Your task to perform on an android device: Empty the shopping cart on newegg.com. Search for bose quietcomfort 35 on newegg.com, select the first entry, add it to the cart, then select checkout. Image 0: 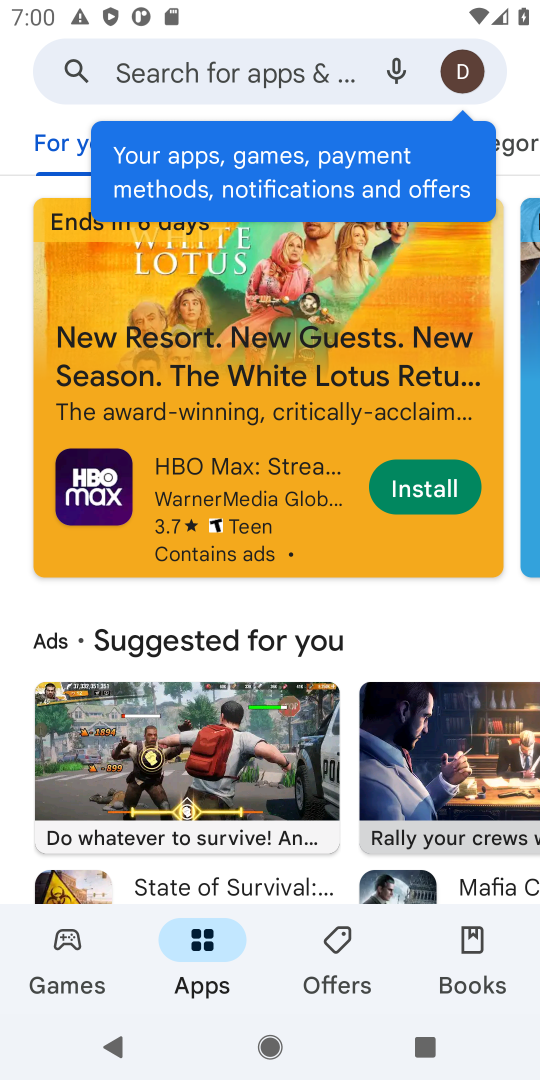
Step 0: press home button
Your task to perform on an android device: Empty the shopping cart on newegg.com. Search for bose quietcomfort 35 on newegg.com, select the first entry, add it to the cart, then select checkout. Image 1: 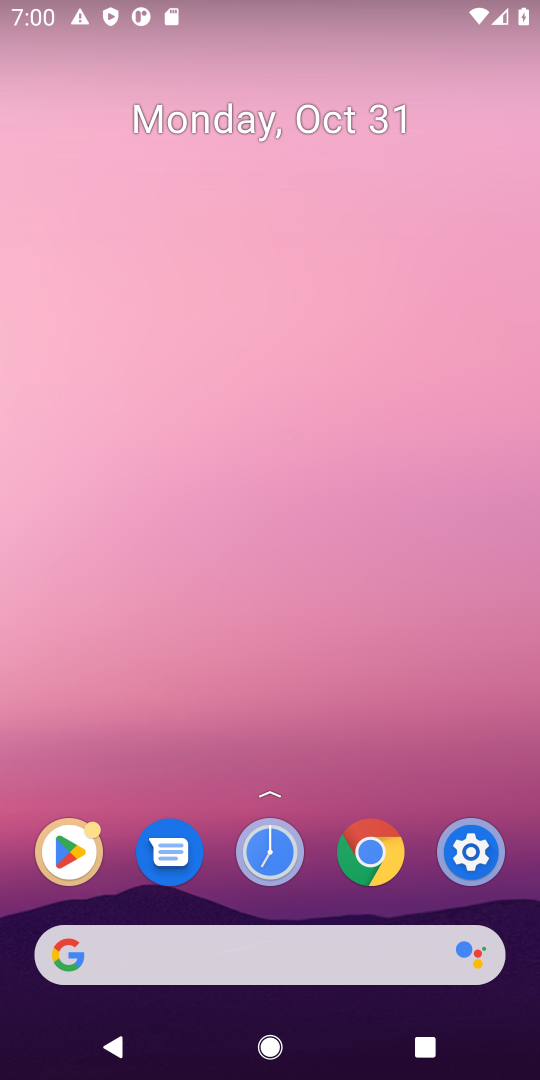
Step 1: drag from (323, 754) to (400, 5)
Your task to perform on an android device: Empty the shopping cart on newegg.com. Search for bose quietcomfort 35 on newegg.com, select the first entry, add it to the cart, then select checkout. Image 2: 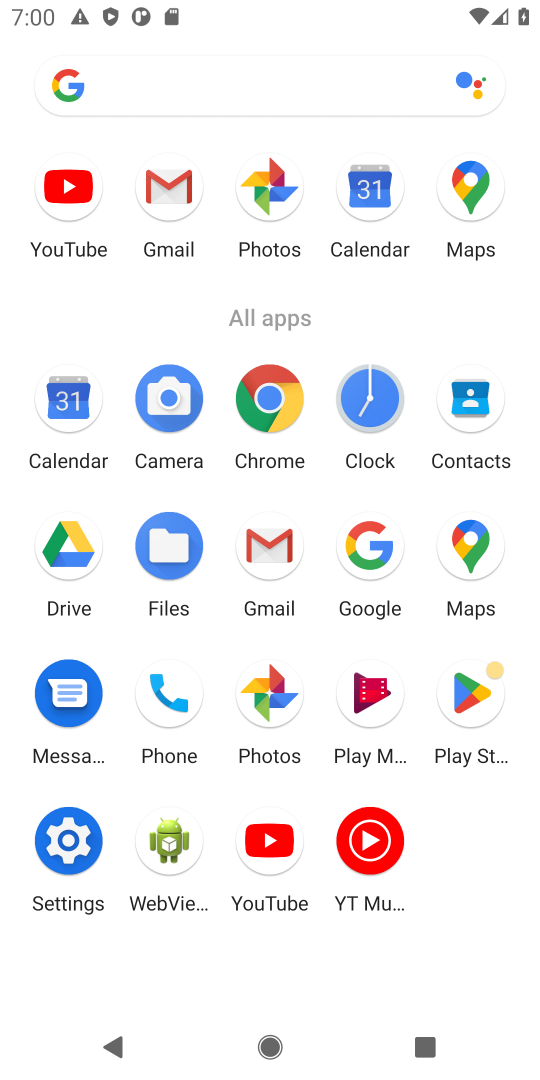
Step 2: click (259, 392)
Your task to perform on an android device: Empty the shopping cart on newegg.com. Search for bose quietcomfort 35 on newegg.com, select the first entry, add it to the cart, then select checkout. Image 3: 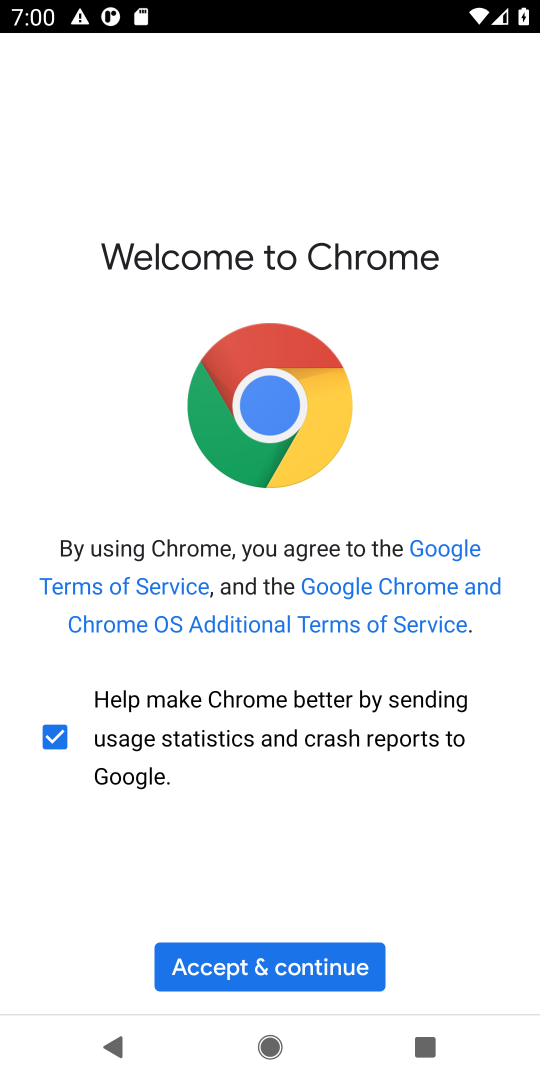
Step 3: click (258, 961)
Your task to perform on an android device: Empty the shopping cart on newegg.com. Search for bose quietcomfort 35 on newegg.com, select the first entry, add it to the cart, then select checkout. Image 4: 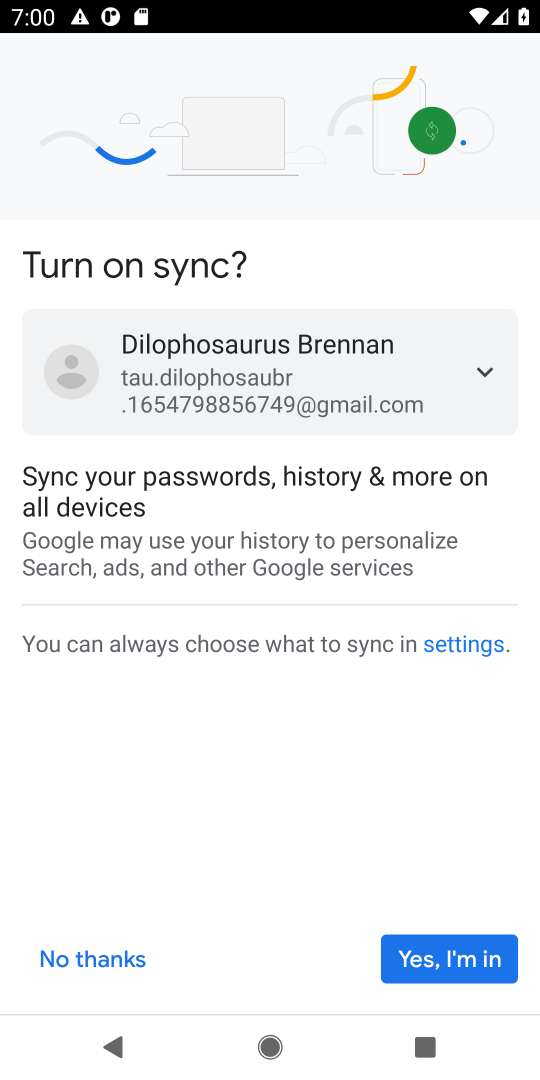
Step 4: click (447, 954)
Your task to perform on an android device: Empty the shopping cart on newegg.com. Search for bose quietcomfort 35 on newegg.com, select the first entry, add it to the cart, then select checkout. Image 5: 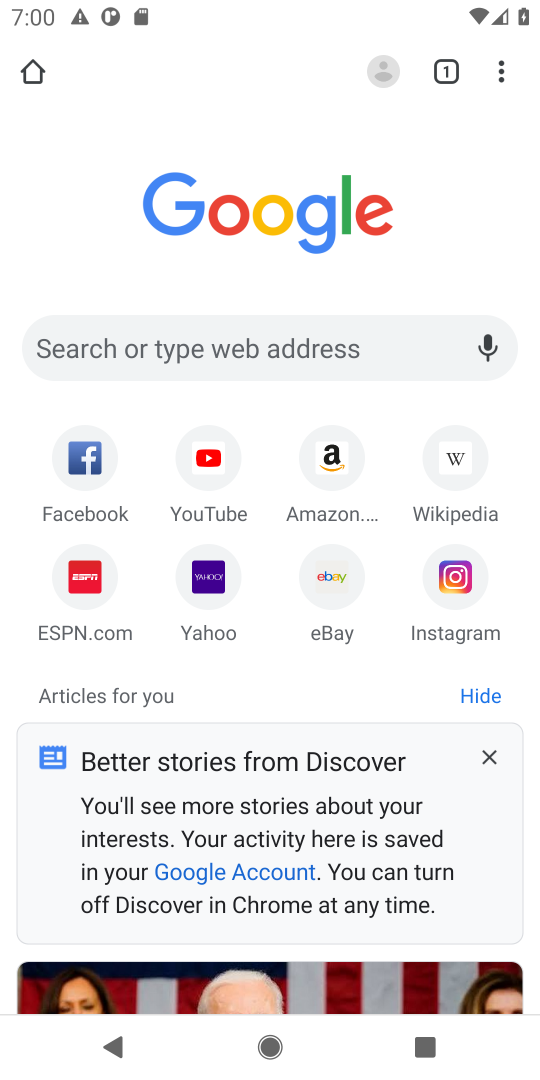
Step 5: click (158, 345)
Your task to perform on an android device: Empty the shopping cart on newegg.com. Search for bose quietcomfort 35 on newegg.com, select the first entry, add it to the cart, then select checkout. Image 6: 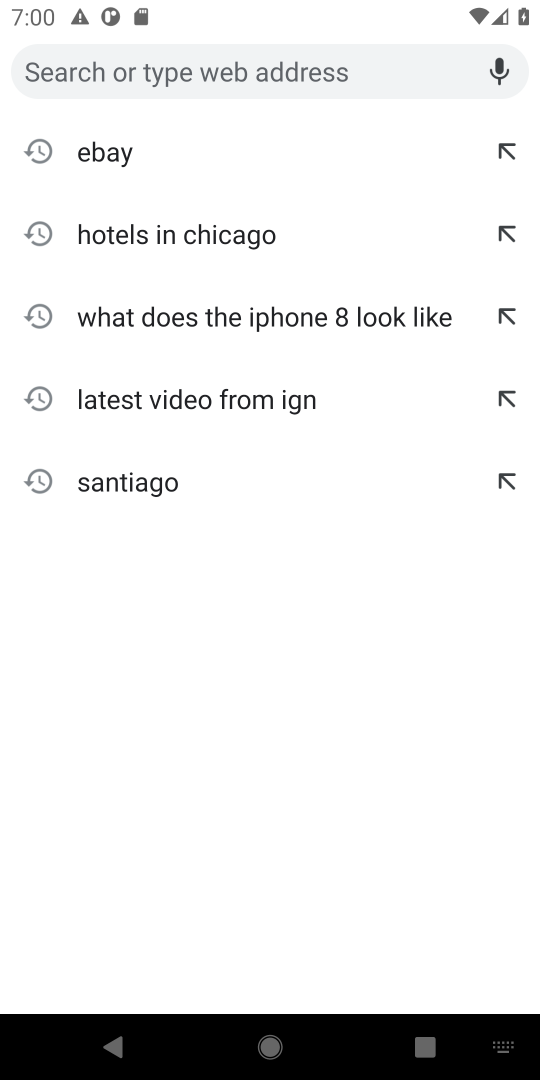
Step 6: type "newegg.com"
Your task to perform on an android device: Empty the shopping cart on newegg.com. Search for bose quietcomfort 35 on newegg.com, select the first entry, add it to the cart, then select checkout. Image 7: 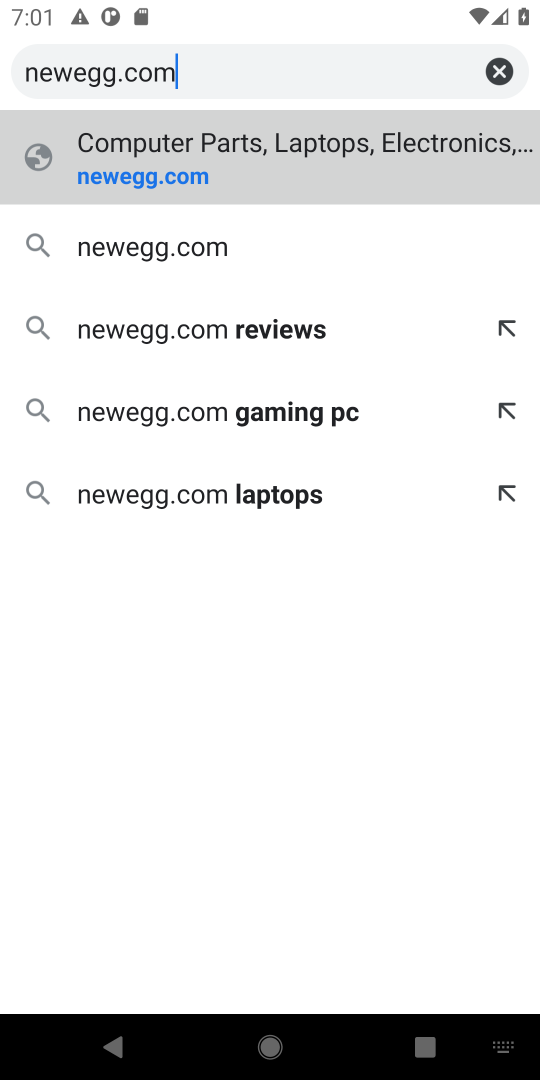
Step 7: click (231, 172)
Your task to perform on an android device: Empty the shopping cart on newegg.com. Search for bose quietcomfort 35 on newegg.com, select the first entry, add it to the cart, then select checkout. Image 8: 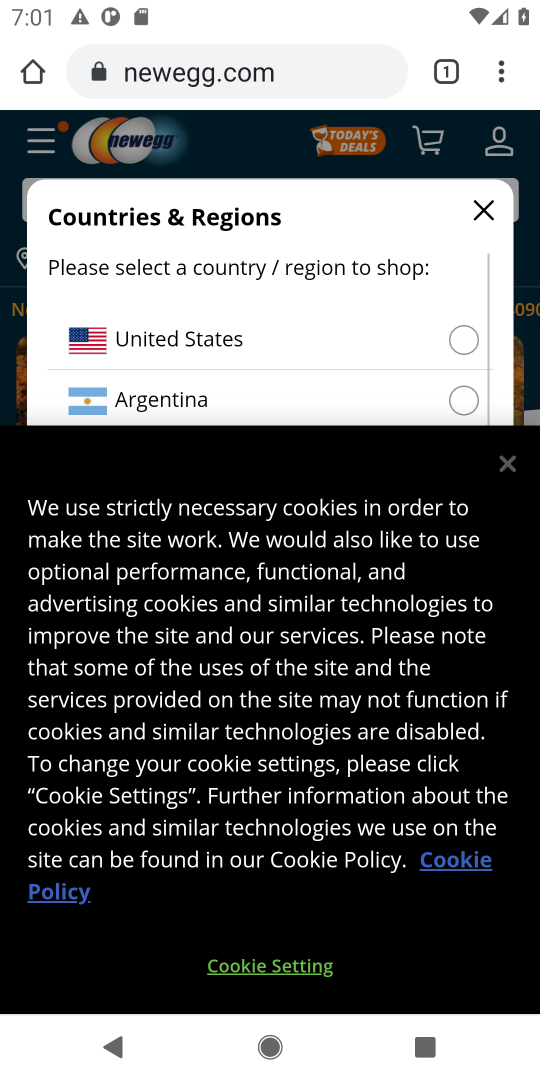
Step 8: click (508, 467)
Your task to perform on an android device: Empty the shopping cart on newegg.com. Search for bose quietcomfort 35 on newegg.com, select the first entry, add it to the cart, then select checkout. Image 9: 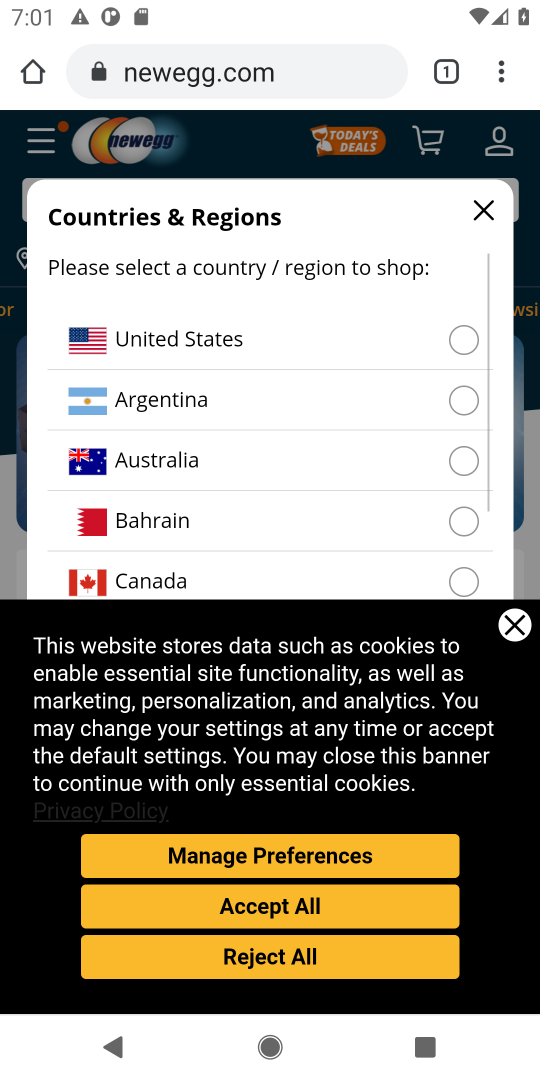
Step 9: click (284, 906)
Your task to perform on an android device: Empty the shopping cart on newegg.com. Search for bose quietcomfort 35 on newegg.com, select the first entry, add it to the cart, then select checkout. Image 10: 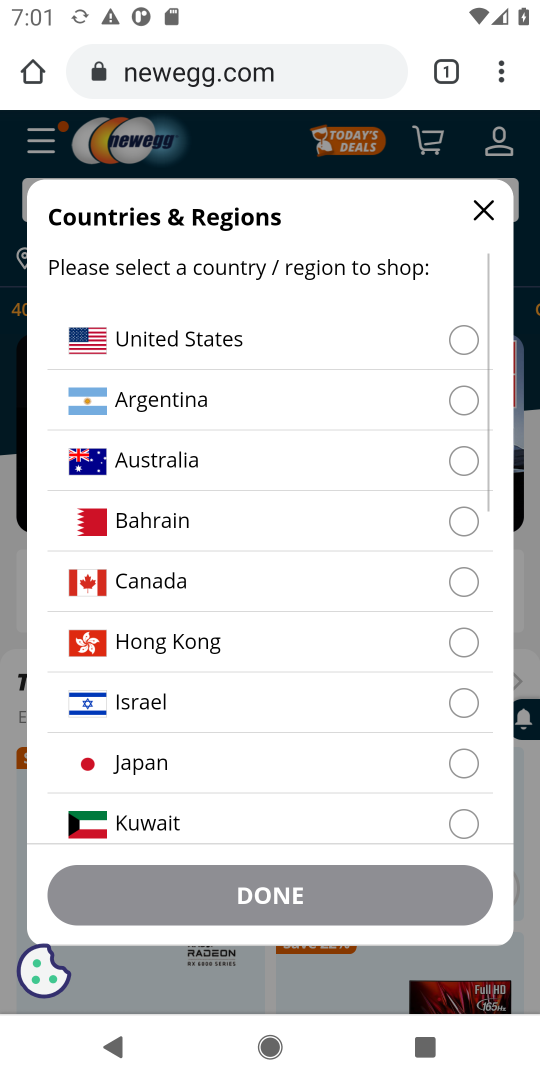
Step 10: click (462, 338)
Your task to perform on an android device: Empty the shopping cart on newegg.com. Search for bose quietcomfort 35 on newegg.com, select the first entry, add it to the cart, then select checkout. Image 11: 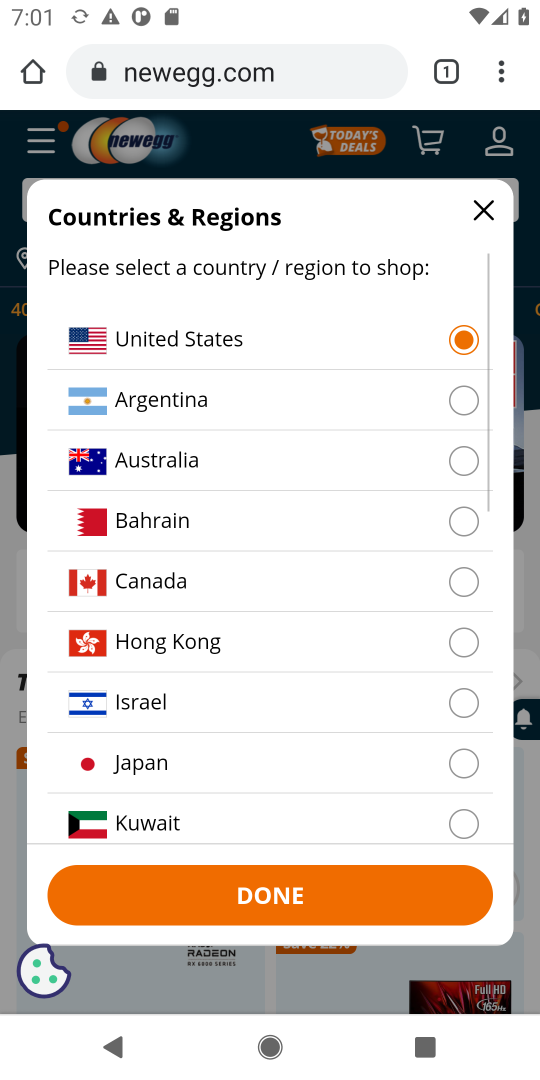
Step 11: click (274, 900)
Your task to perform on an android device: Empty the shopping cart on newegg.com. Search for bose quietcomfort 35 on newegg.com, select the first entry, add it to the cart, then select checkout. Image 12: 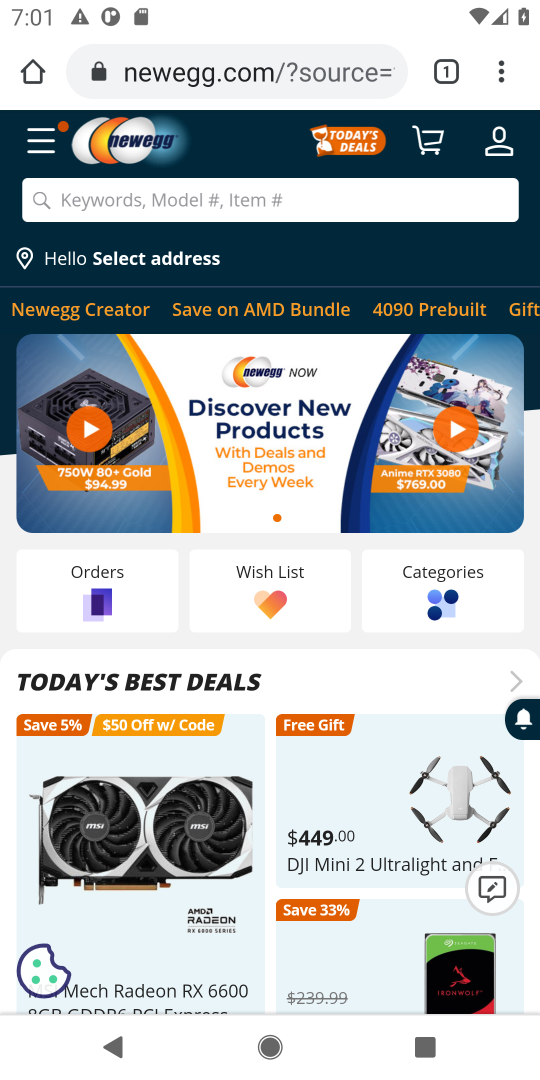
Step 12: click (161, 195)
Your task to perform on an android device: Empty the shopping cart on newegg.com. Search for bose quietcomfort 35 on newegg.com, select the first entry, add it to the cart, then select checkout. Image 13: 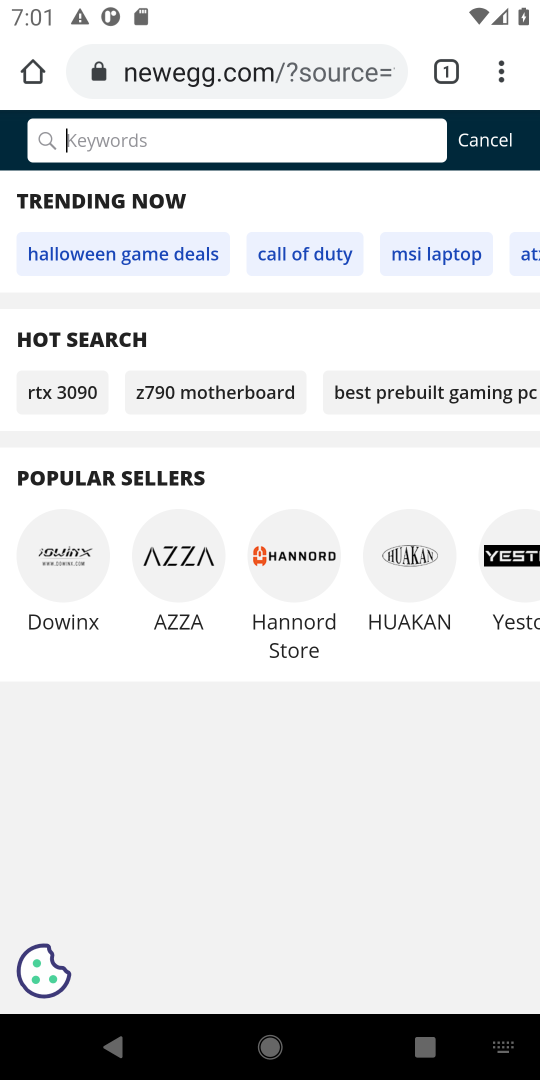
Step 13: type "bose quietcomfort 35"
Your task to perform on an android device: Empty the shopping cart on newegg.com. Search for bose quietcomfort 35 on newegg.com, select the first entry, add it to the cart, then select checkout. Image 14: 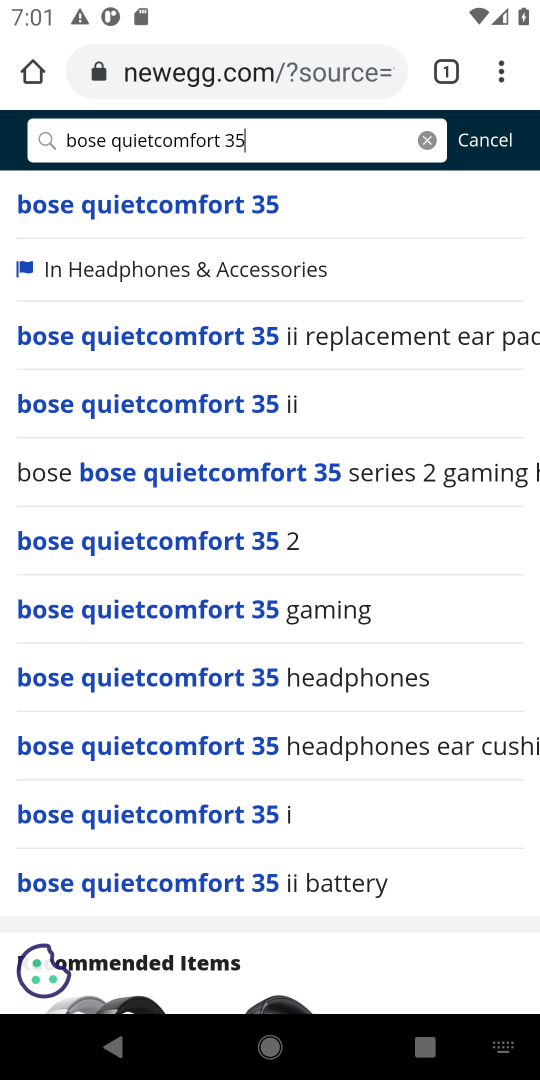
Step 14: click (140, 200)
Your task to perform on an android device: Empty the shopping cart on newegg.com. Search for bose quietcomfort 35 on newegg.com, select the first entry, add it to the cart, then select checkout. Image 15: 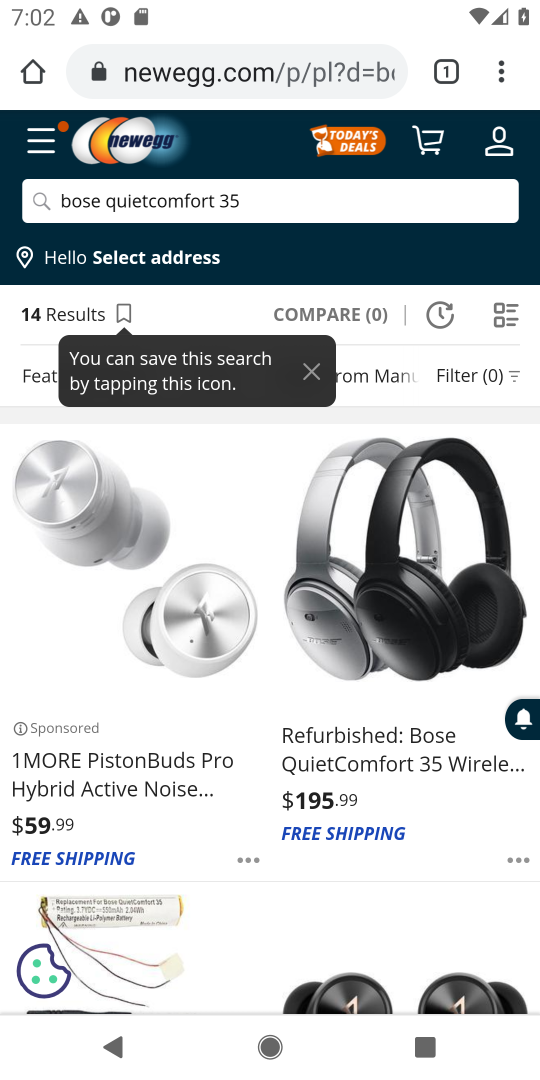
Step 15: click (153, 604)
Your task to perform on an android device: Empty the shopping cart on newegg.com. Search for bose quietcomfort 35 on newegg.com, select the first entry, add it to the cart, then select checkout. Image 16: 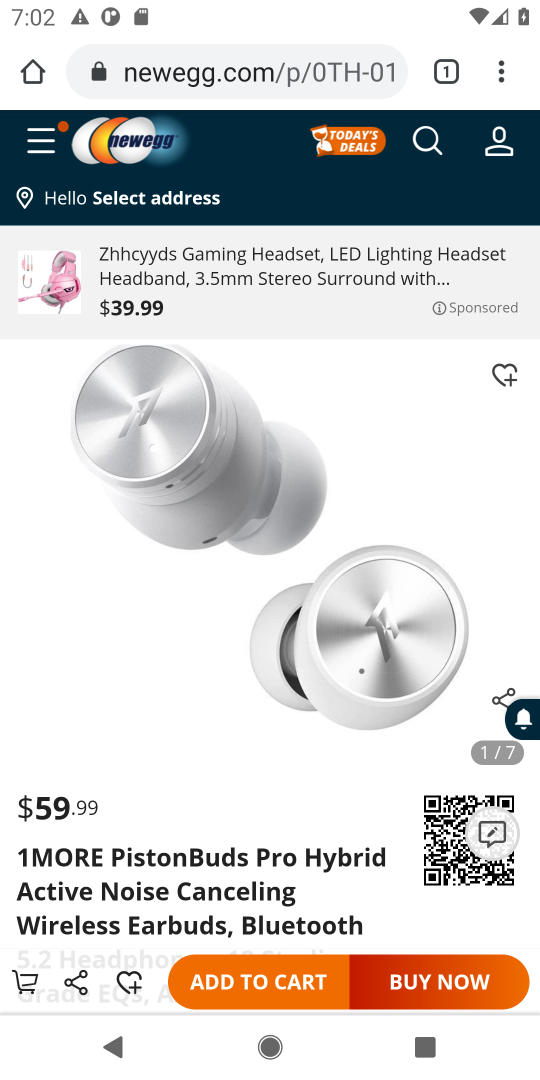
Step 16: drag from (246, 891) to (282, 351)
Your task to perform on an android device: Empty the shopping cart on newegg.com. Search for bose quietcomfort 35 on newegg.com, select the first entry, add it to the cart, then select checkout. Image 17: 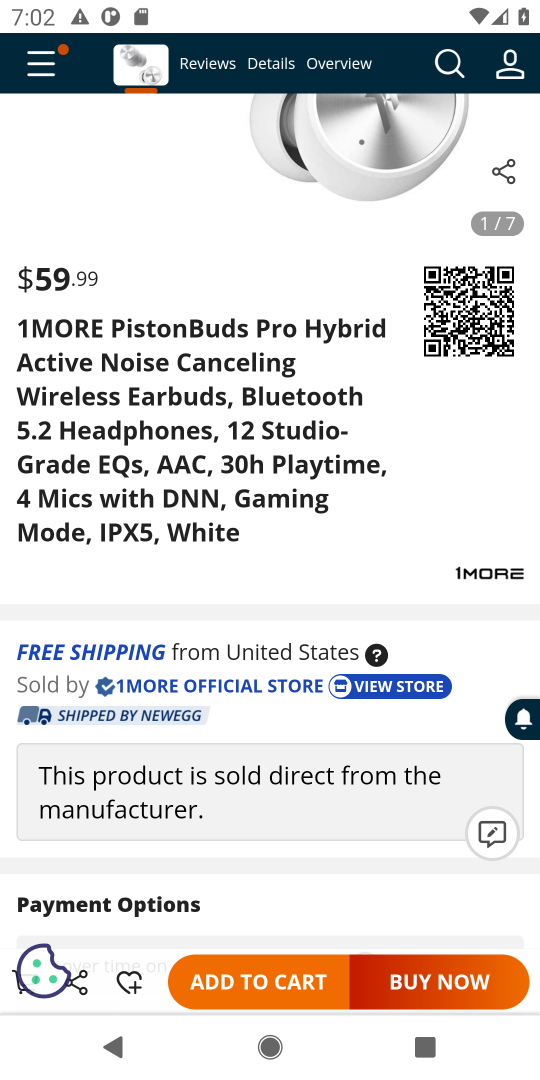
Step 17: drag from (244, 859) to (285, 455)
Your task to perform on an android device: Empty the shopping cart on newegg.com. Search for bose quietcomfort 35 on newegg.com, select the first entry, add it to the cart, then select checkout. Image 18: 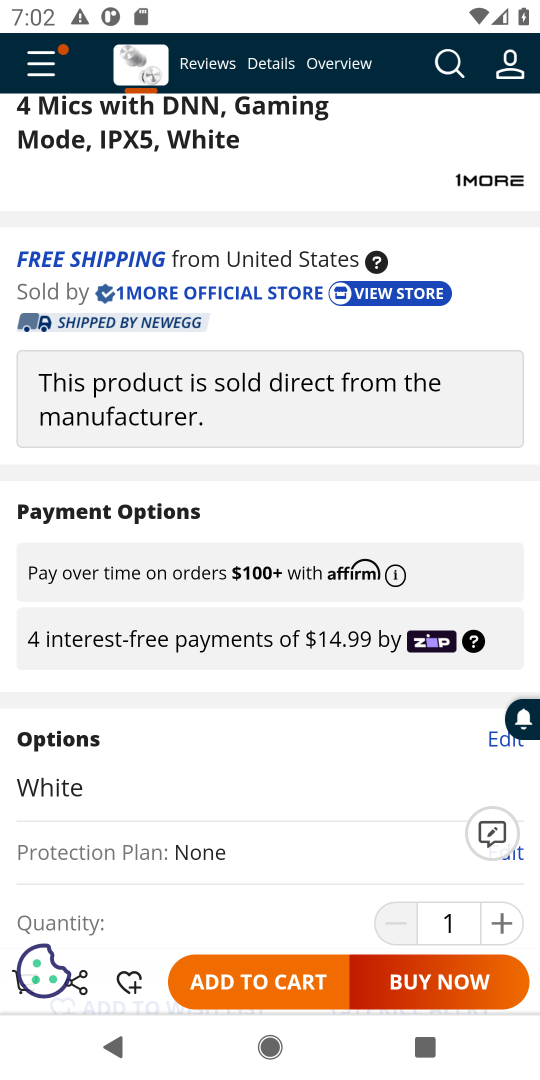
Step 18: click (250, 982)
Your task to perform on an android device: Empty the shopping cart on newegg.com. Search for bose quietcomfort 35 on newegg.com, select the first entry, add it to the cart, then select checkout. Image 19: 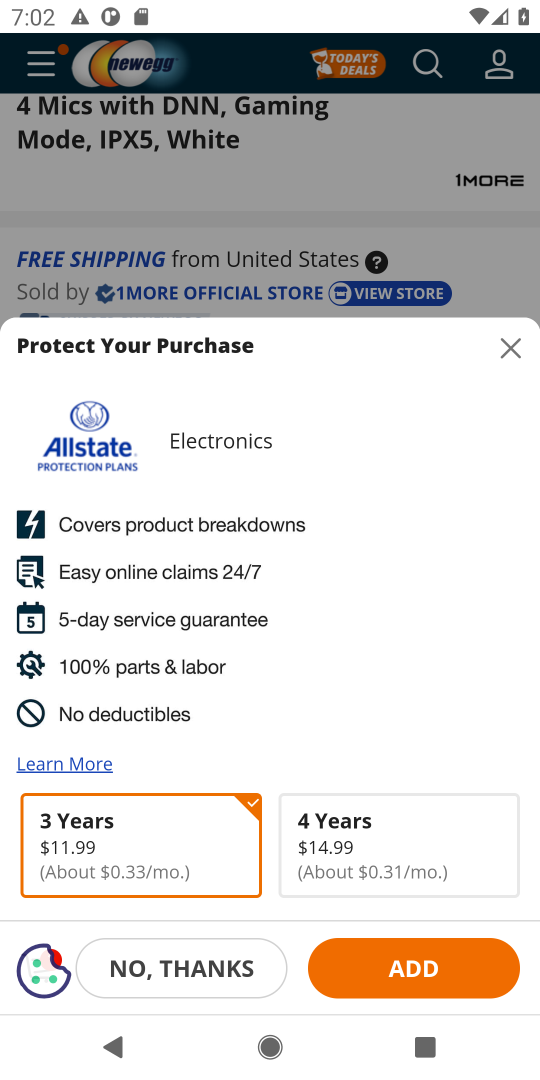
Step 19: click (170, 972)
Your task to perform on an android device: Empty the shopping cart on newegg.com. Search for bose quietcomfort 35 on newegg.com, select the first entry, add it to the cart, then select checkout. Image 20: 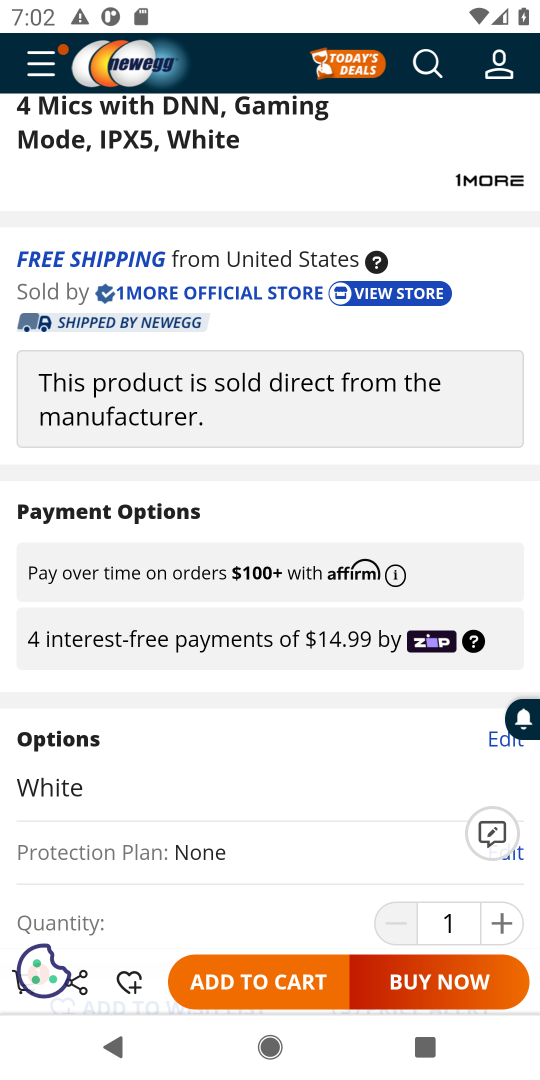
Step 20: drag from (256, 231) to (249, 1000)
Your task to perform on an android device: Empty the shopping cart on newegg.com. Search for bose quietcomfort 35 on newegg.com, select the first entry, add it to the cart, then select checkout. Image 21: 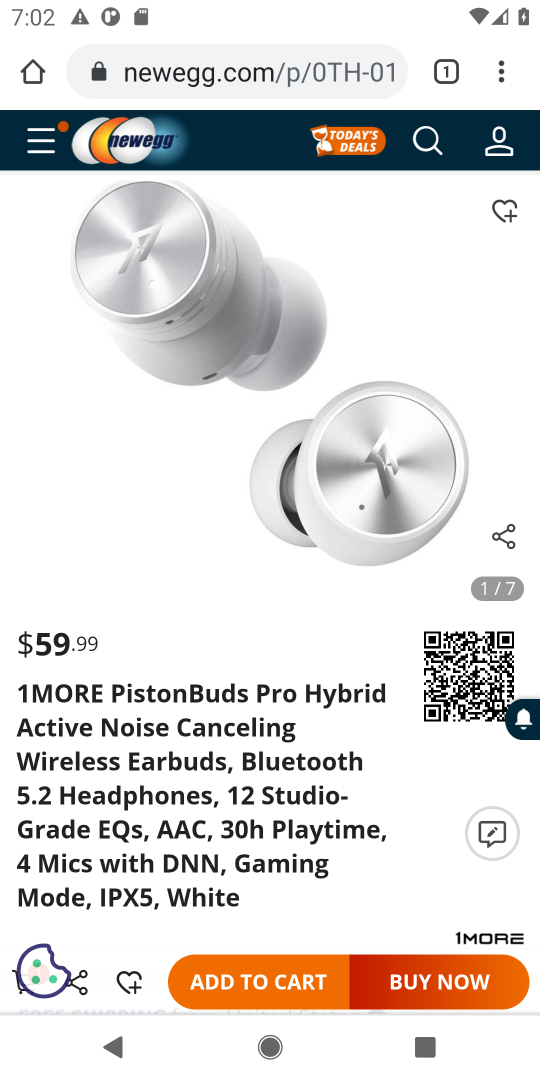
Step 21: drag from (44, 971) to (110, 764)
Your task to perform on an android device: Empty the shopping cart on newegg.com. Search for bose quietcomfort 35 on newegg.com, select the first entry, add it to the cart, then select checkout. Image 22: 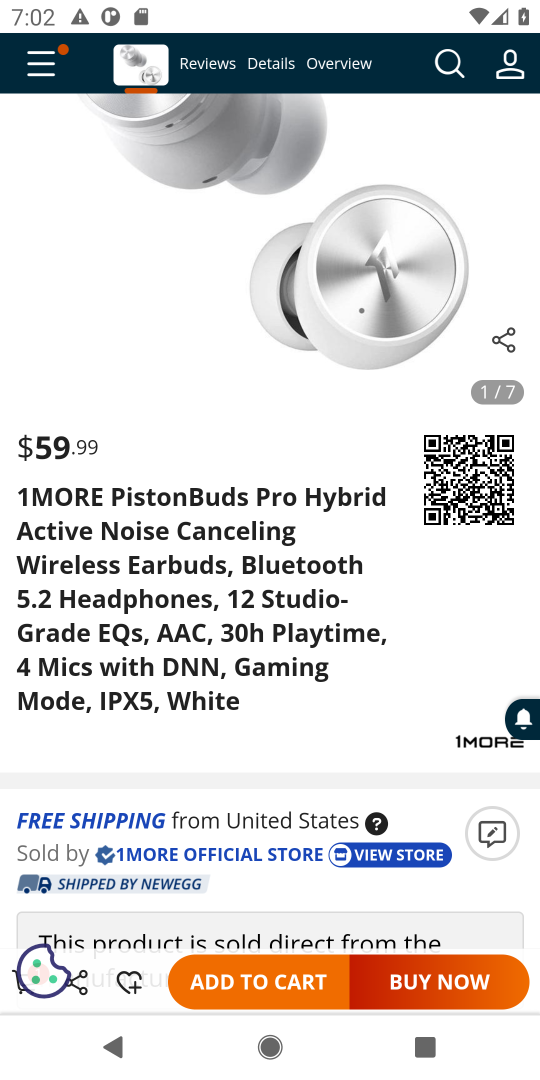
Step 22: click (7, 989)
Your task to perform on an android device: Empty the shopping cart on newegg.com. Search for bose quietcomfort 35 on newegg.com, select the first entry, add it to the cart, then select checkout. Image 23: 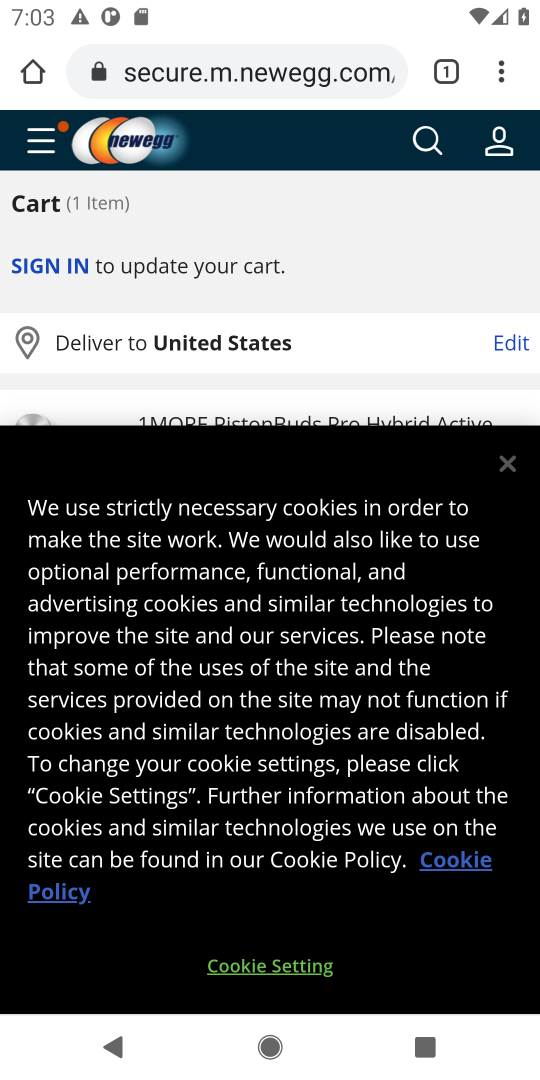
Step 23: click (510, 464)
Your task to perform on an android device: Empty the shopping cart on newegg.com. Search for bose quietcomfort 35 on newegg.com, select the first entry, add it to the cart, then select checkout. Image 24: 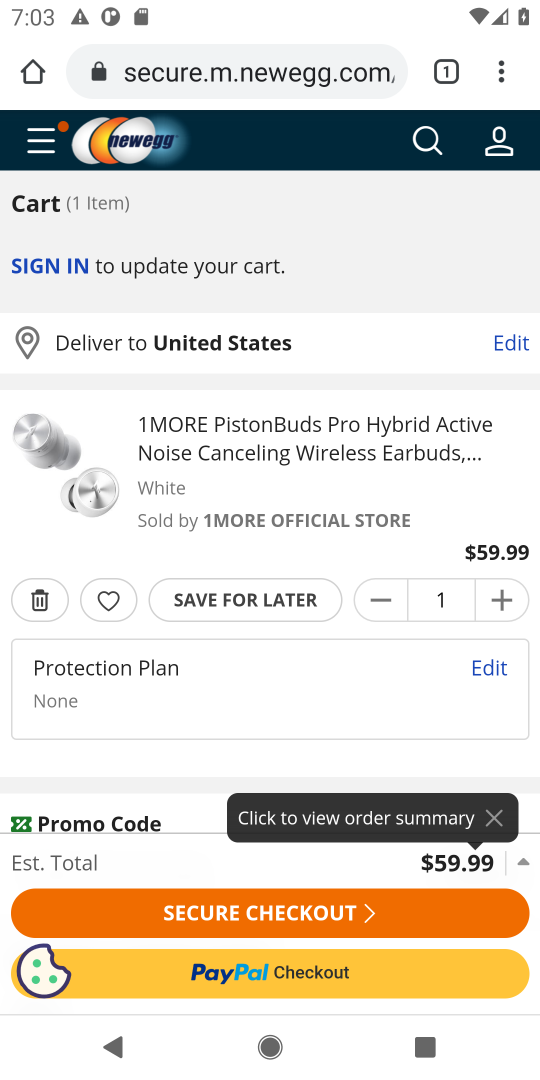
Step 24: click (312, 911)
Your task to perform on an android device: Empty the shopping cart on newegg.com. Search for bose quietcomfort 35 on newegg.com, select the first entry, add it to the cart, then select checkout. Image 25: 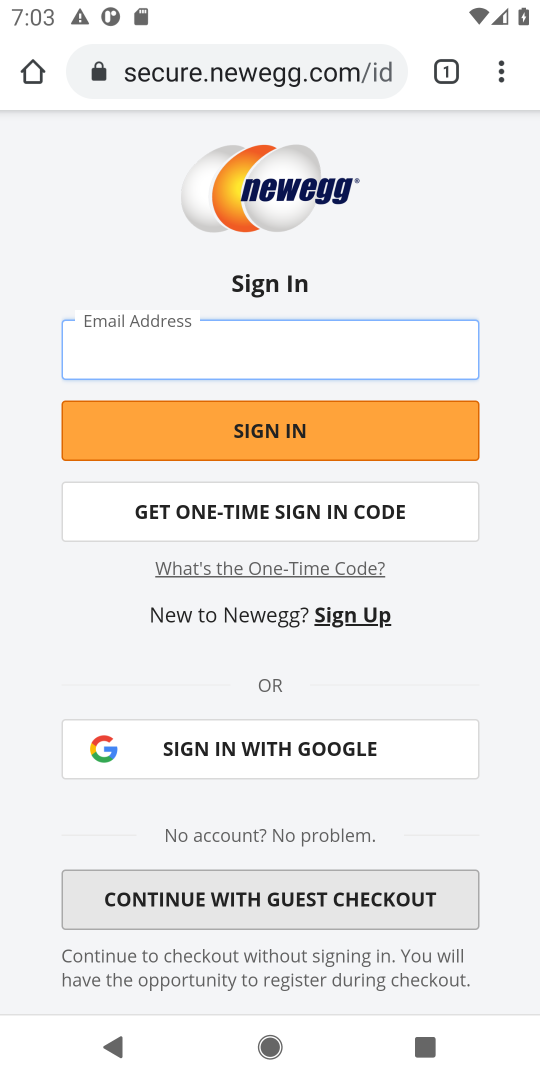
Step 25: task complete